Your task to perform on an android device: Is it going to rain this weekend? Image 0: 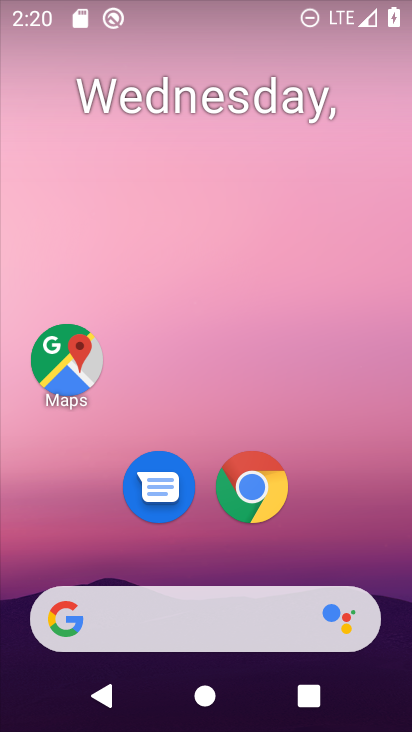
Step 0: drag from (396, 603) to (272, 50)
Your task to perform on an android device: Is it going to rain this weekend? Image 1: 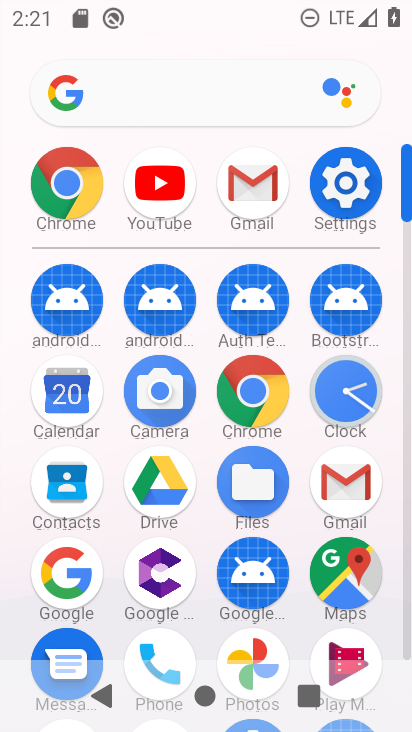
Step 1: click (73, 565)
Your task to perform on an android device: Is it going to rain this weekend? Image 2: 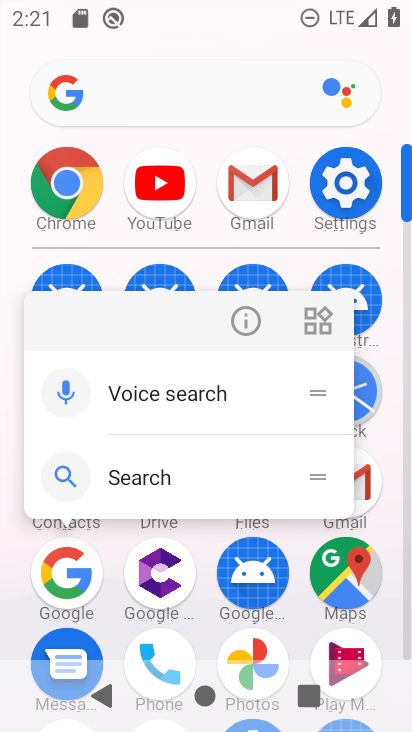
Step 2: click (72, 569)
Your task to perform on an android device: Is it going to rain this weekend? Image 3: 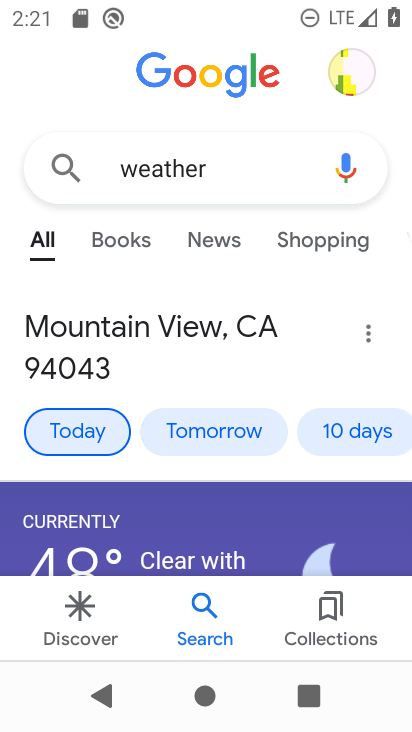
Step 3: task complete